Your task to perform on an android device: see sites visited before in the chrome app Image 0: 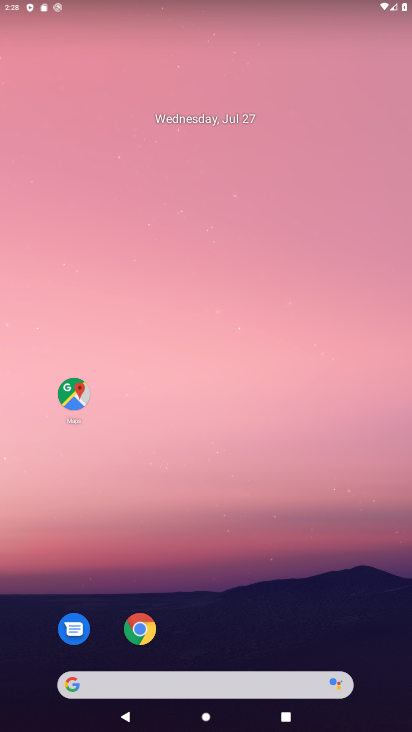
Step 0: click (129, 641)
Your task to perform on an android device: see sites visited before in the chrome app Image 1: 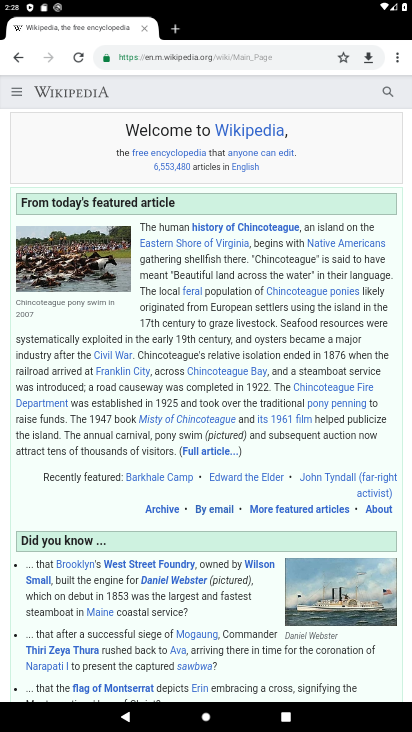
Step 1: click (402, 53)
Your task to perform on an android device: see sites visited before in the chrome app Image 2: 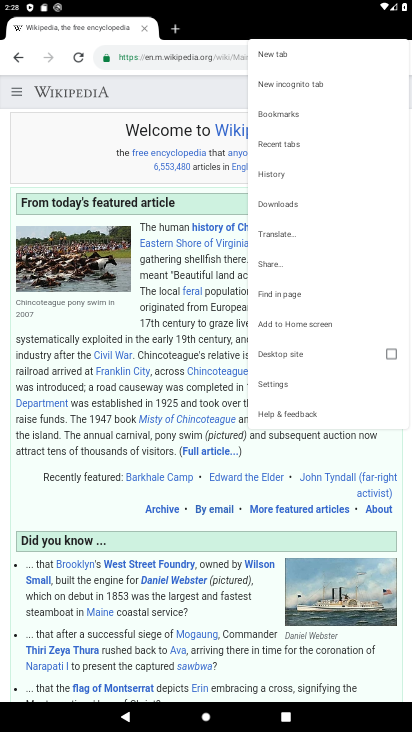
Step 2: click (316, 148)
Your task to perform on an android device: see sites visited before in the chrome app Image 3: 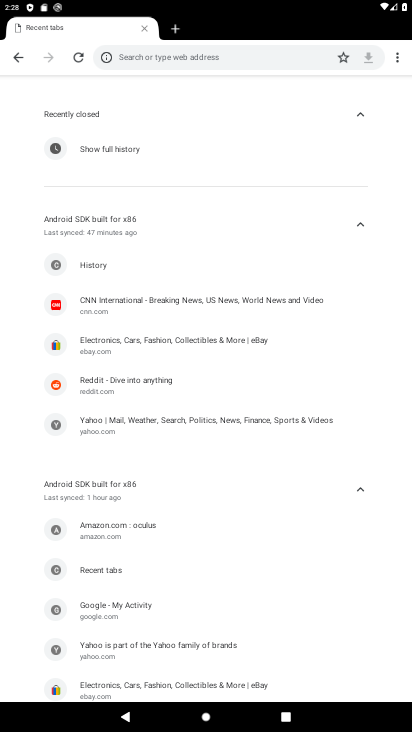
Step 3: task complete